Your task to perform on an android device: stop showing notifications on the lock screen Image 0: 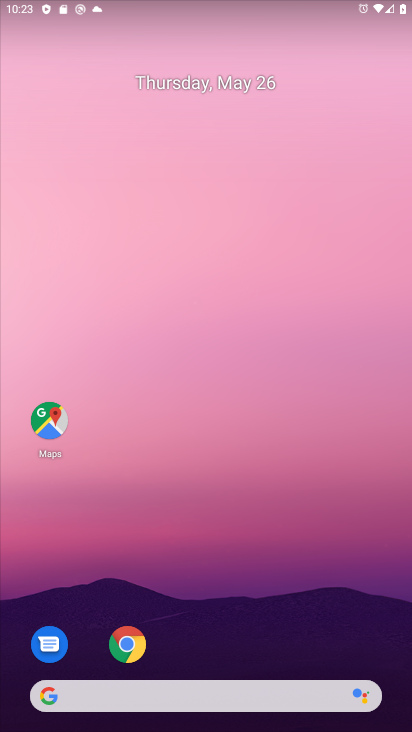
Step 0: drag from (224, 480) to (216, 189)
Your task to perform on an android device: stop showing notifications on the lock screen Image 1: 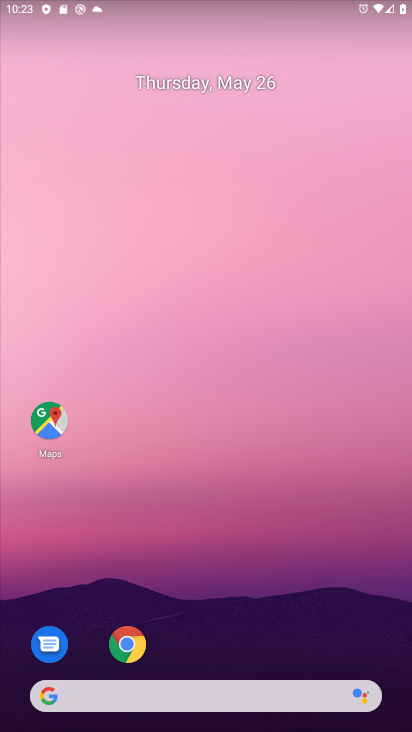
Step 1: drag from (222, 642) to (194, 204)
Your task to perform on an android device: stop showing notifications on the lock screen Image 2: 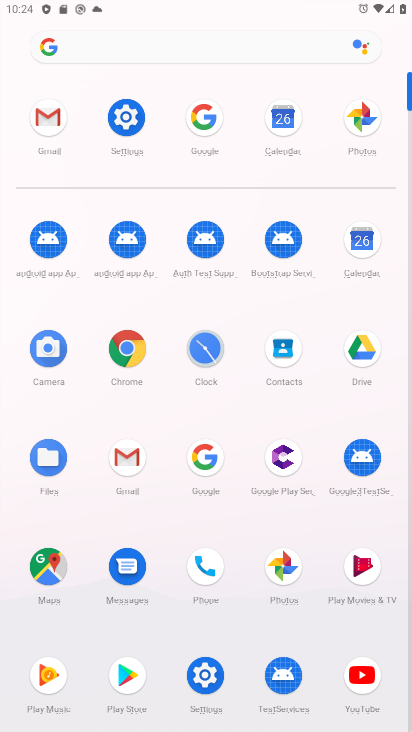
Step 2: click (112, 118)
Your task to perform on an android device: stop showing notifications on the lock screen Image 3: 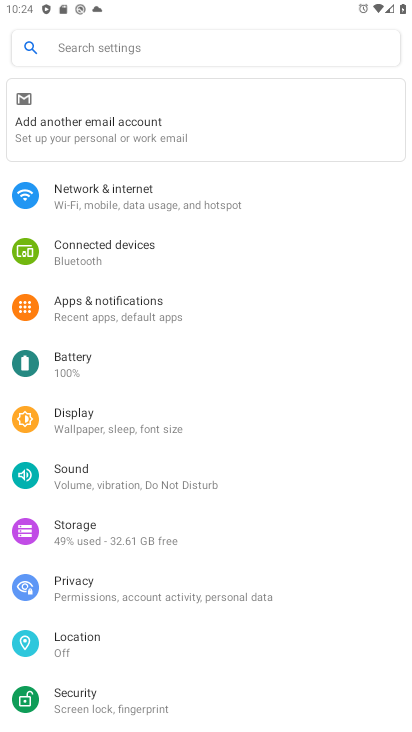
Step 3: click (161, 295)
Your task to perform on an android device: stop showing notifications on the lock screen Image 4: 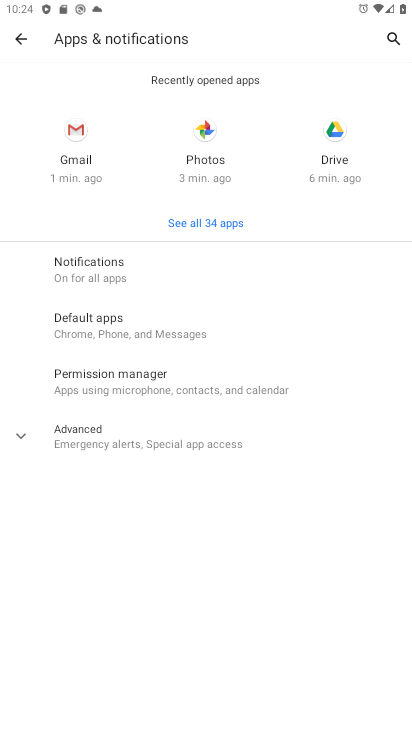
Step 4: click (156, 272)
Your task to perform on an android device: stop showing notifications on the lock screen Image 5: 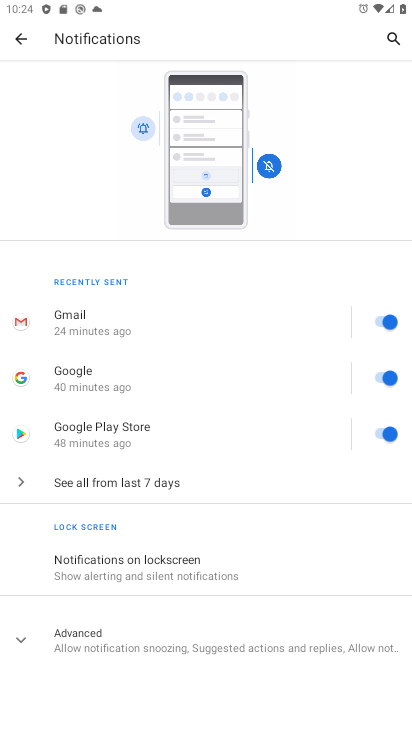
Step 5: click (191, 559)
Your task to perform on an android device: stop showing notifications on the lock screen Image 6: 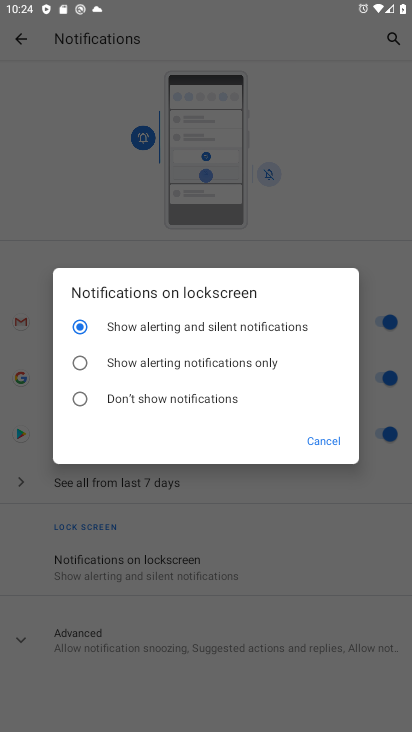
Step 6: click (187, 399)
Your task to perform on an android device: stop showing notifications on the lock screen Image 7: 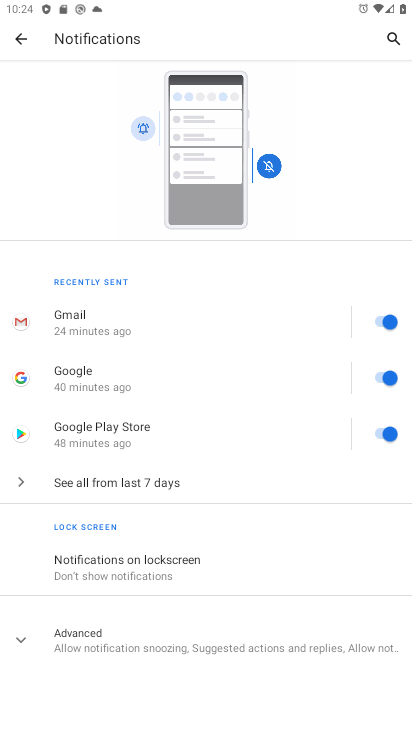
Step 7: task complete